Your task to perform on an android device: turn off smart reply in the gmail app Image 0: 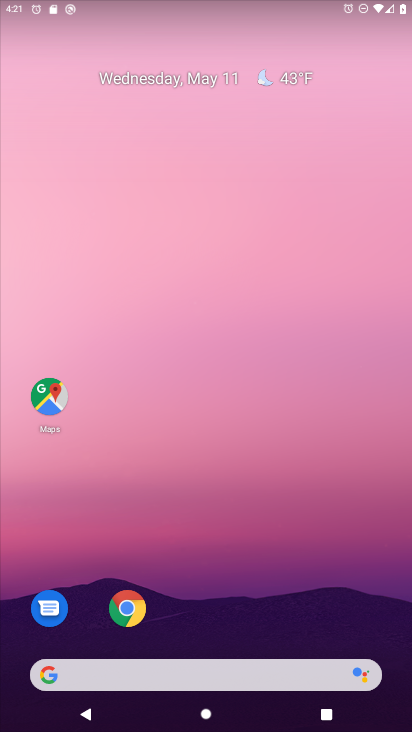
Step 0: drag from (223, 729) to (226, 14)
Your task to perform on an android device: turn off smart reply in the gmail app Image 1: 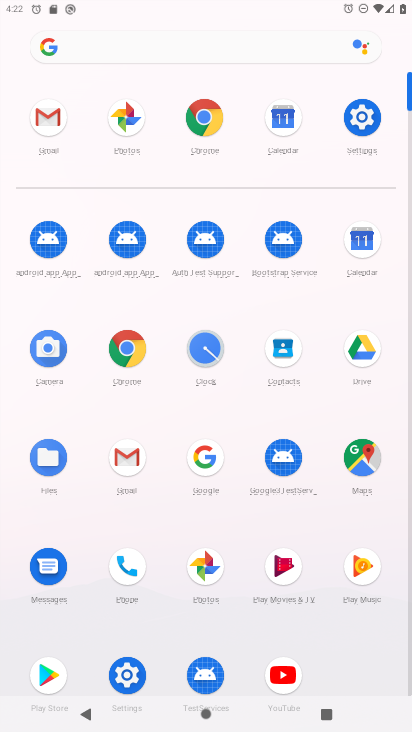
Step 1: click (47, 117)
Your task to perform on an android device: turn off smart reply in the gmail app Image 2: 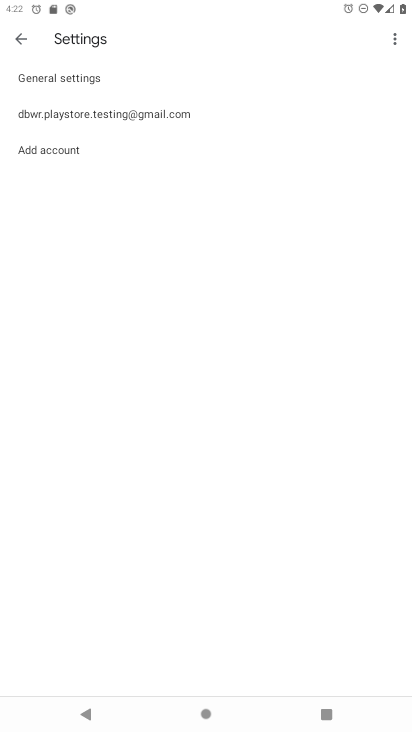
Step 2: click (70, 109)
Your task to perform on an android device: turn off smart reply in the gmail app Image 3: 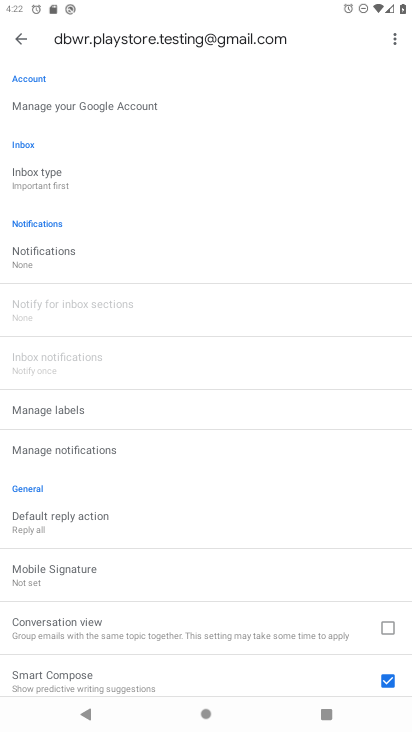
Step 3: drag from (99, 598) to (89, 191)
Your task to perform on an android device: turn off smart reply in the gmail app Image 4: 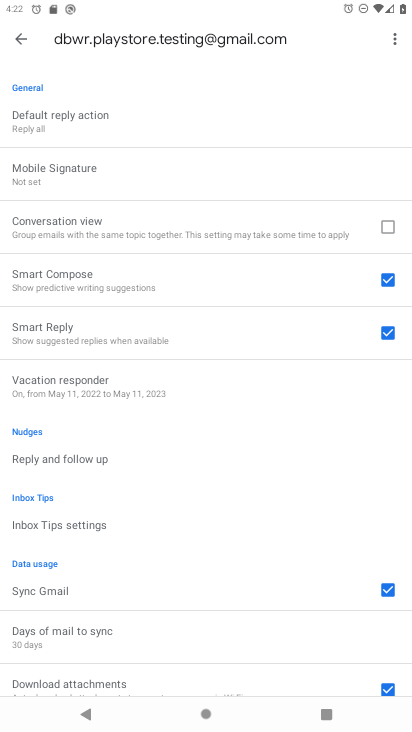
Step 4: click (388, 332)
Your task to perform on an android device: turn off smart reply in the gmail app Image 5: 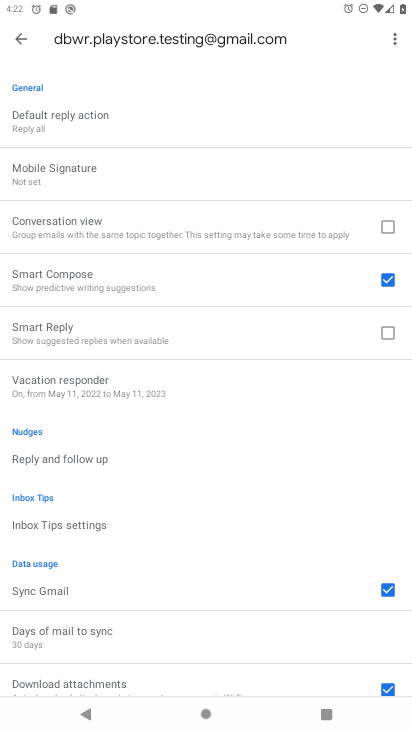
Step 5: task complete